Your task to perform on an android device: turn notification dots off Image 0: 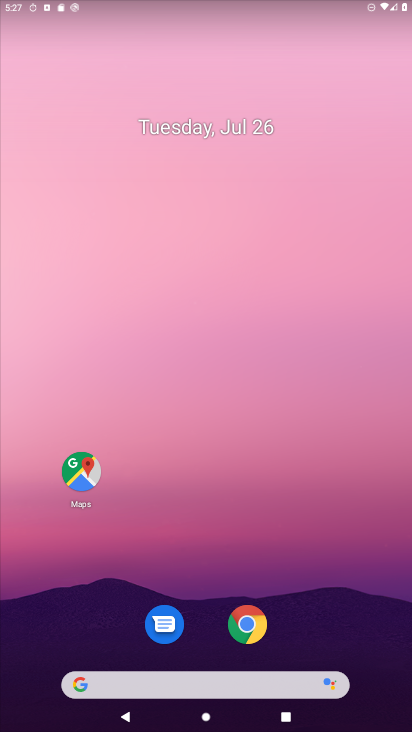
Step 0: drag from (265, 676) to (294, 25)
Your task to perform on an android device: turn notification dots off Image 1: 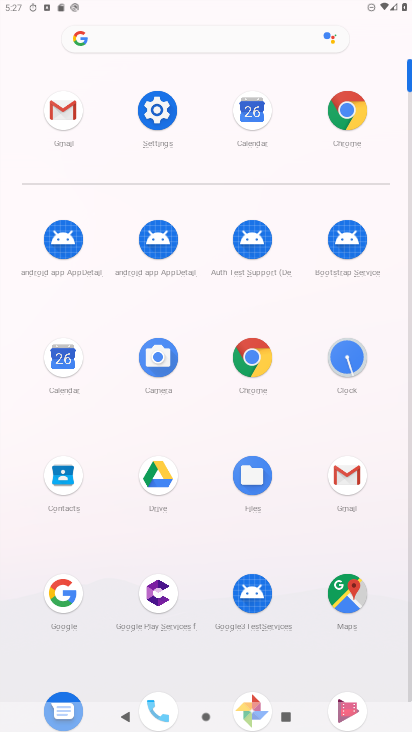
Step 1: click (172, 110)
Your task to perform on an android device: turn notification dots off Image 2: 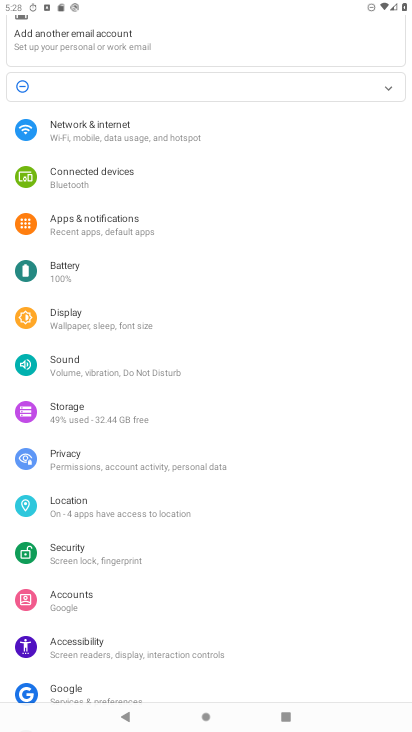
Step 2: click (78, 232)
Your task to perform on an android device: turn notification dots off Image 3: 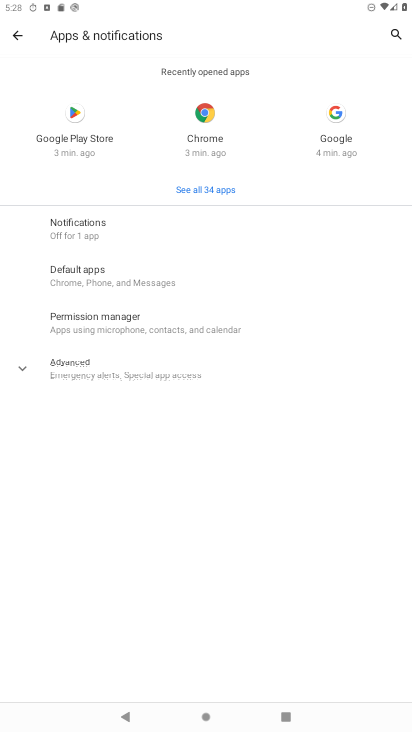
Step 3: click (132, 367)
Your task to perform on an android device: turn notification dots off Image 4: 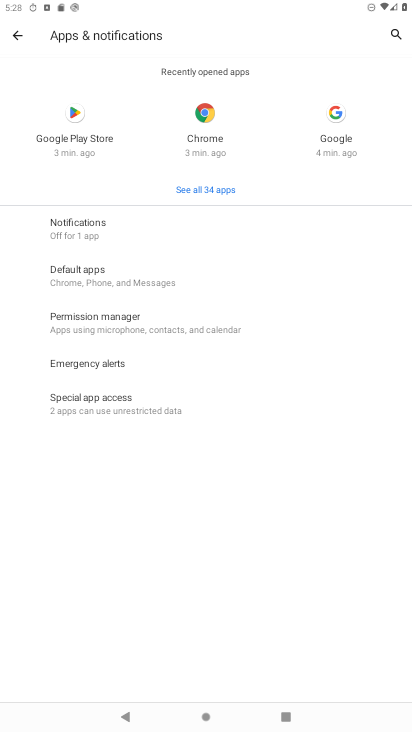
Step 4: click (99, 238)
Your task to perform on an android device: turn notification dots off Image 5: 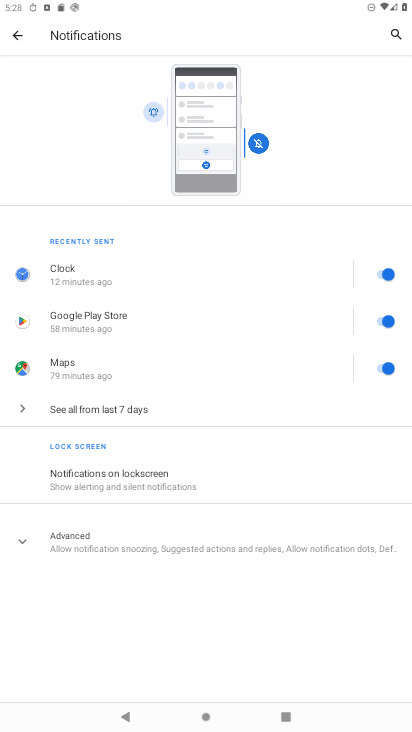
Step 5: click (129, 536)
Your task to perform on an android device: turn notification dots off Image 6: 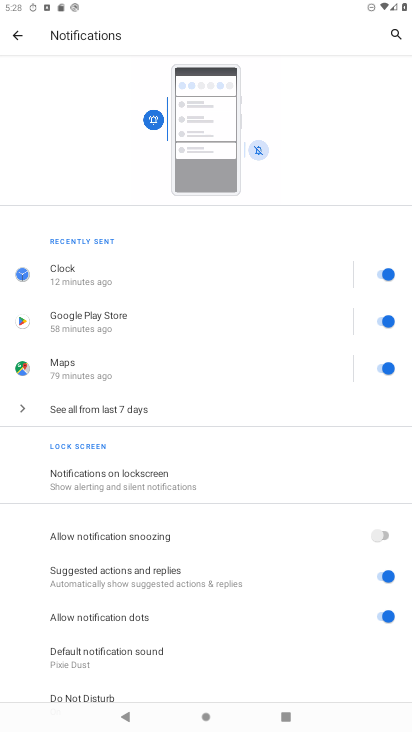
Step 6: click (387, 618)
Your task to perform on an android device: turn notification dots off Image 7: 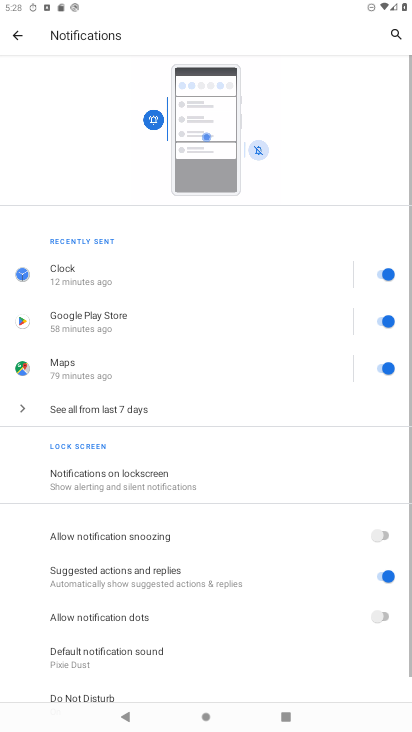
Step 7: task complete